Your task to perform on an android device: Show the shopping cart on bestbuy.com. Search for "duracell triple a" on bestbuy.com, select the first entry, and add it to the cart. Image 0: 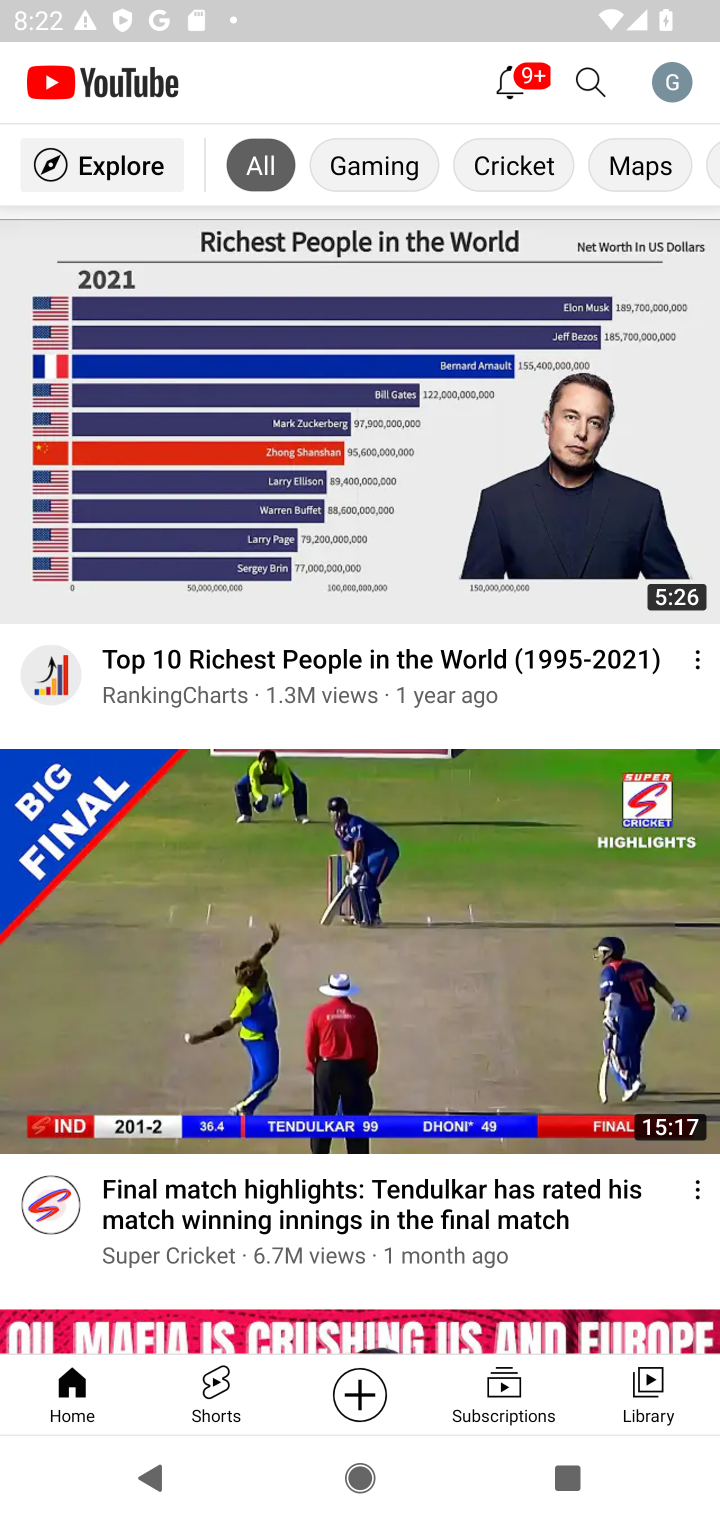
Step 0: press home button
Your task to perform on an android device: Show the shopping cart on bestbuy.com. Search for "duracell triple a" on bestbuy.com, select the first entry, and add it to the cart. Image 1: 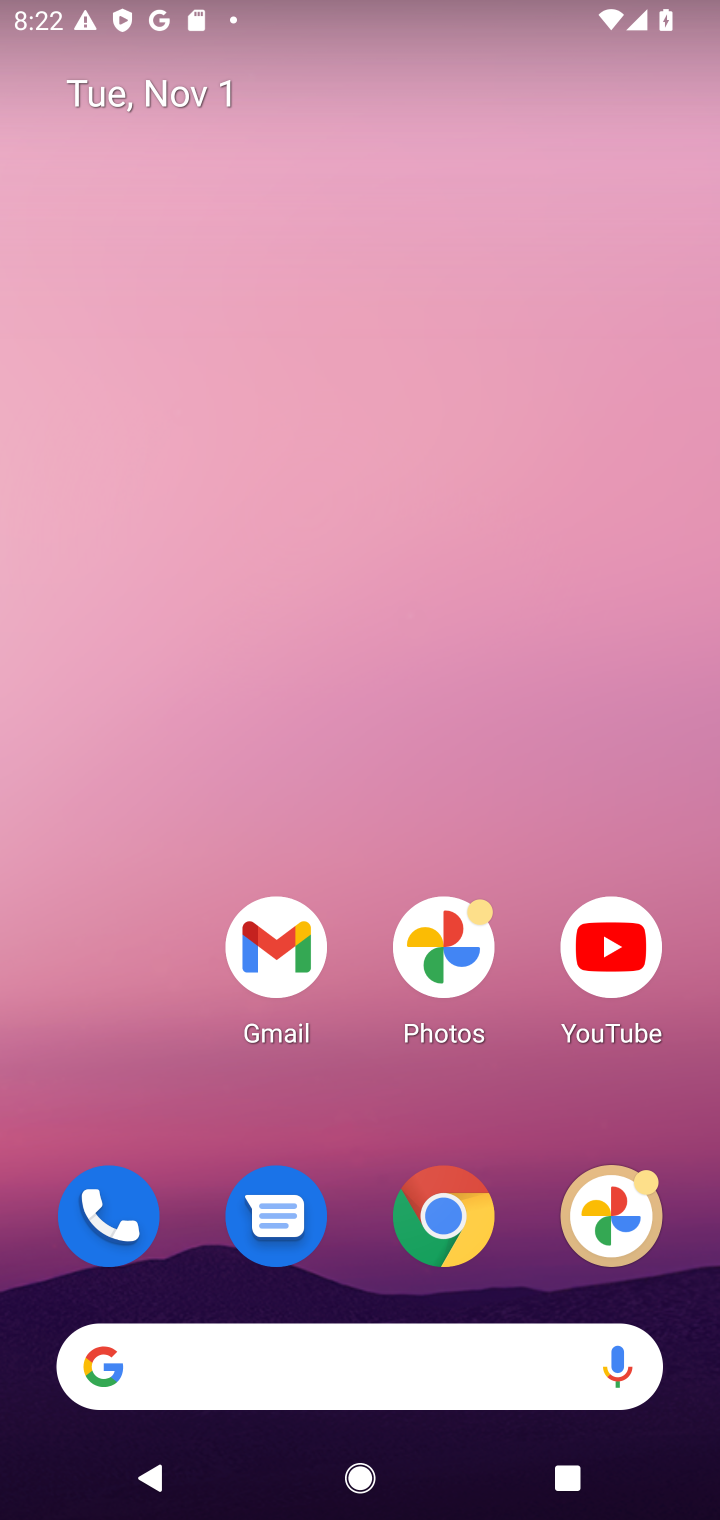
Step 1: click (429, 1230)
Your task to perform on an android device: Show the shopping cart on bestbuy.com. Search for "duracell triple a" on bestbuy.com, select the first entry, and add it to the cart. Image 2: 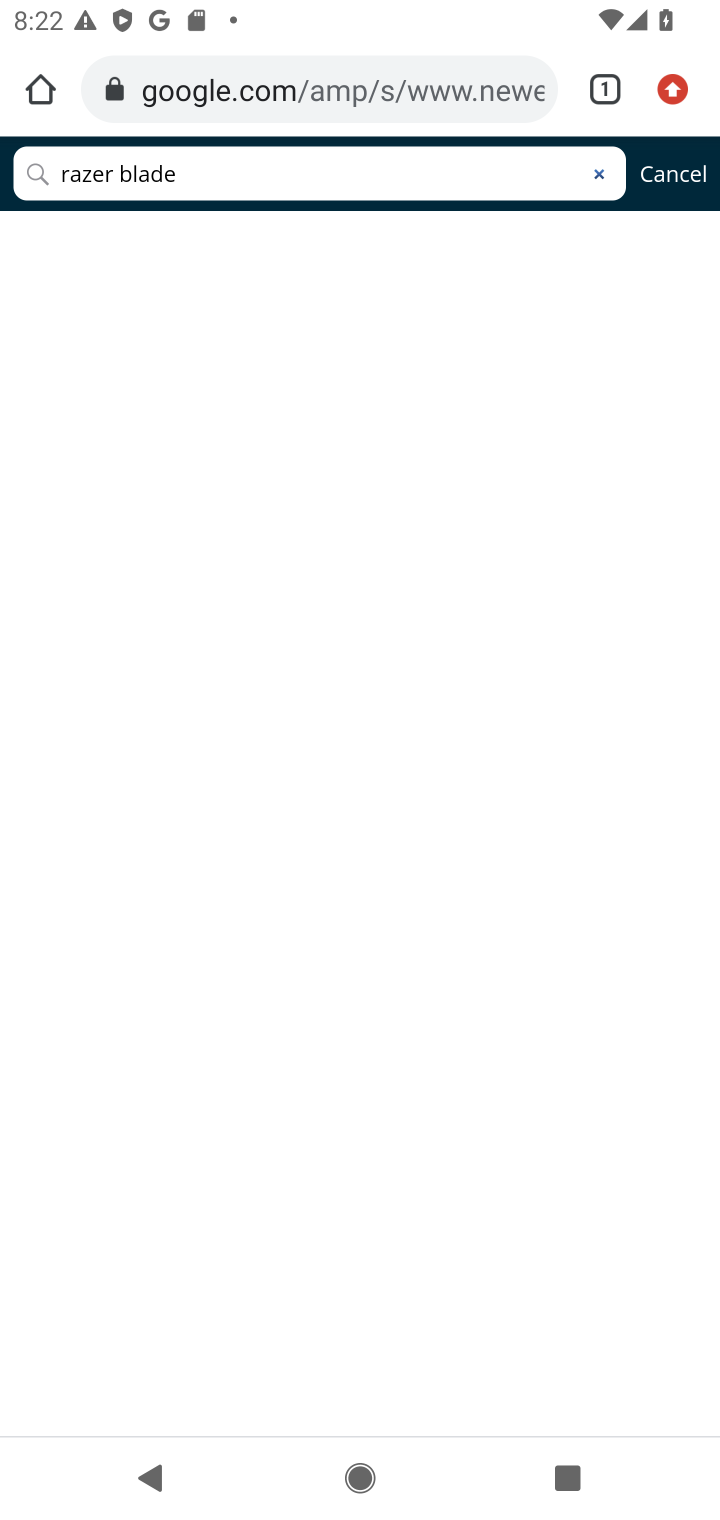
Step 2: click (388, 93)
Your task to perform on an android device: Show the shopping cart on bestbuy.com. Search for "duracell triple a" on bestbuy.com, select the first entry, and add it to the cart. Image 3: 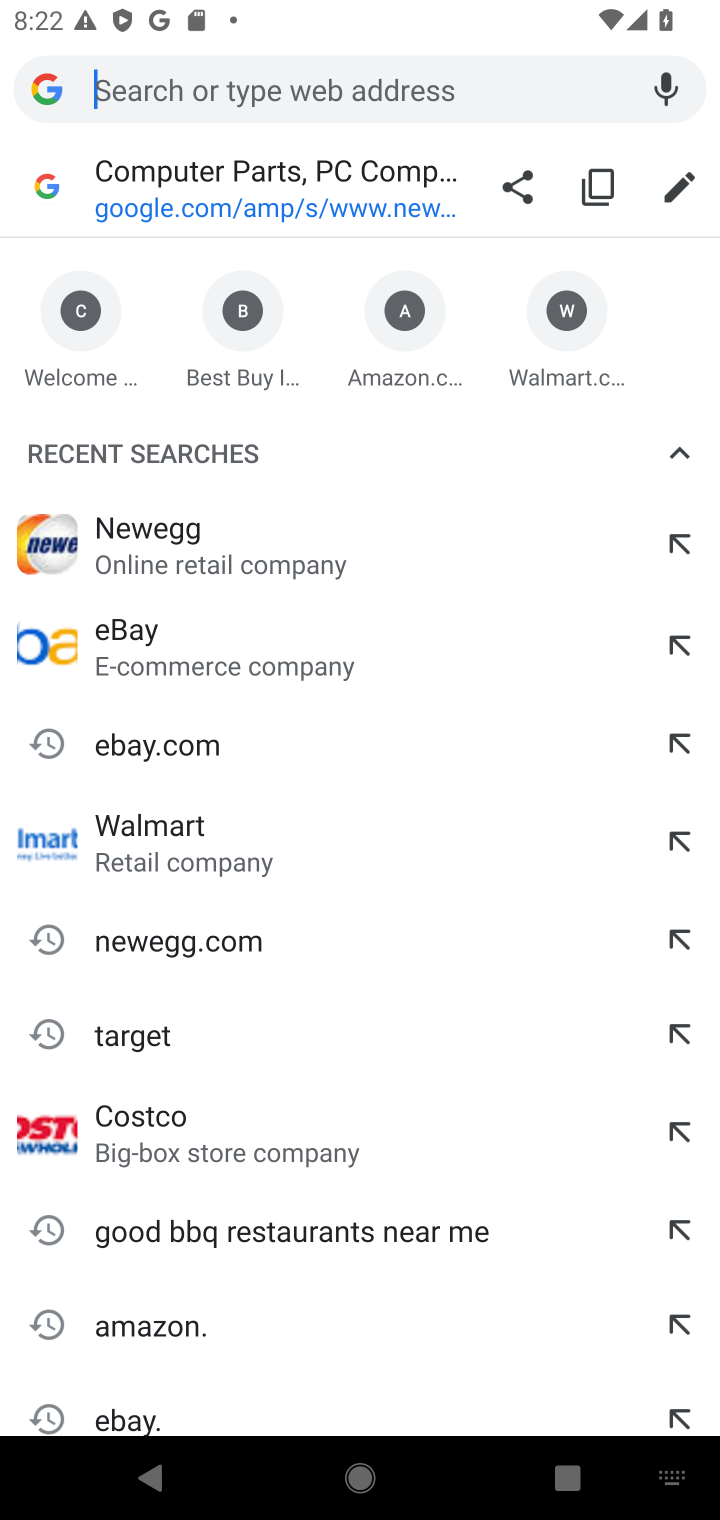
Step 3: type "bestbuy.com"
Your task to perform on an android device: Show the shopping cart on bestbuy.com. Search for "duracell triple a" on bestbuy.com, select the first entry, and add it to the cart. Image 4: 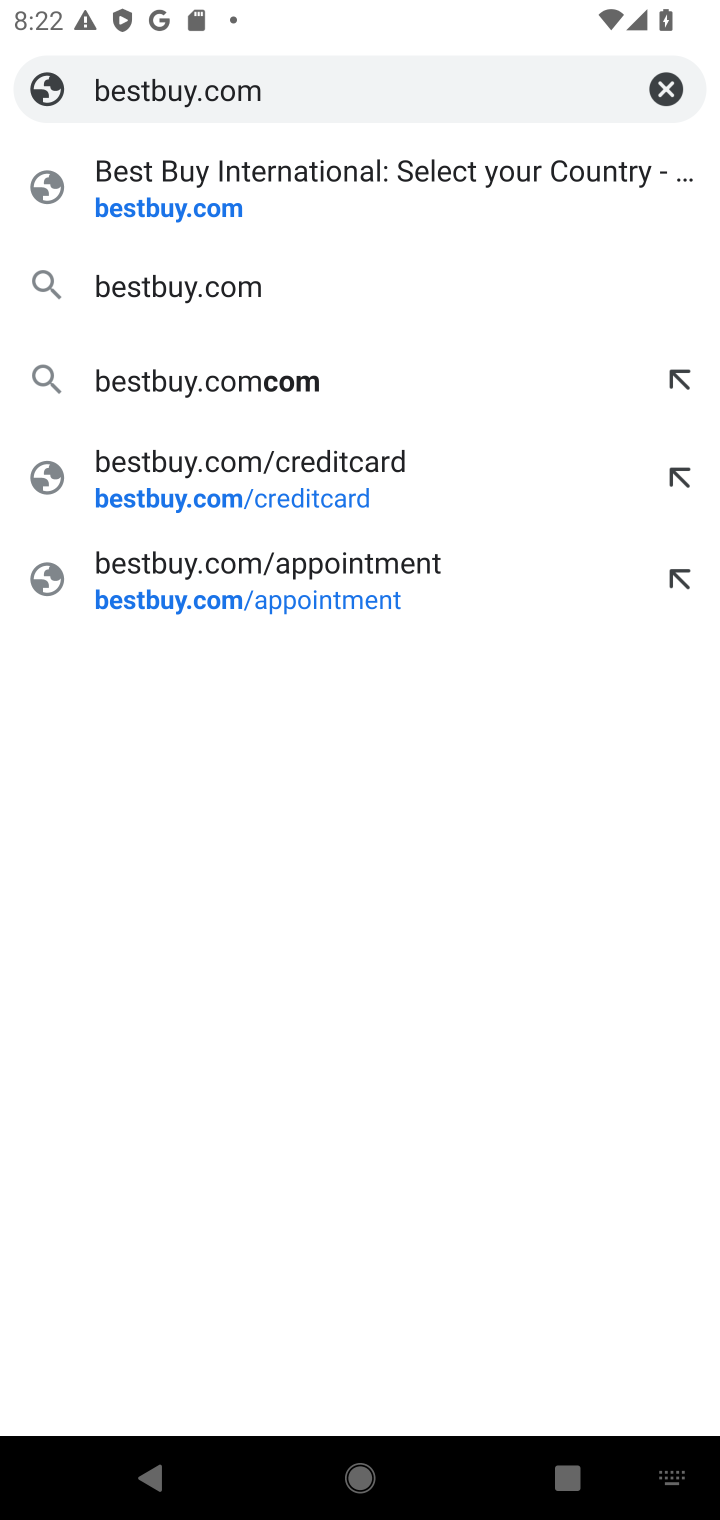
Step 4: click (238, 183)
Your task to perform on an android device: Show the shopping cart on bestbuy.com. Search for "duracell triple a" on bestbuy.com, select the first entry, and add it to the cart. Image 5: 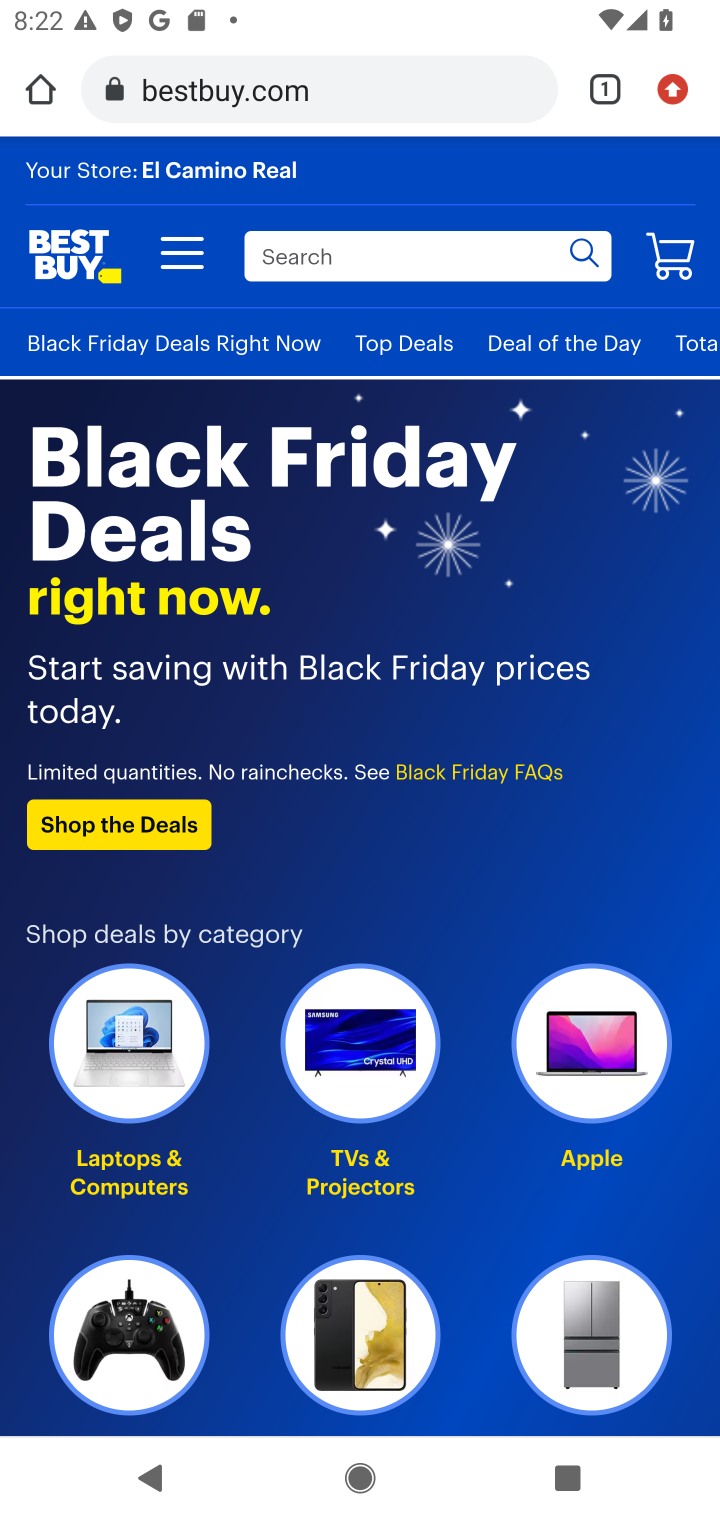
Step 5: click (364, 250)
Your task to perform on an android device: Show the shopping cart on bestbuy.com. Search for "duracell triple a" on bestbuy.com, select the first entry, and add it to the cart. Image 6: 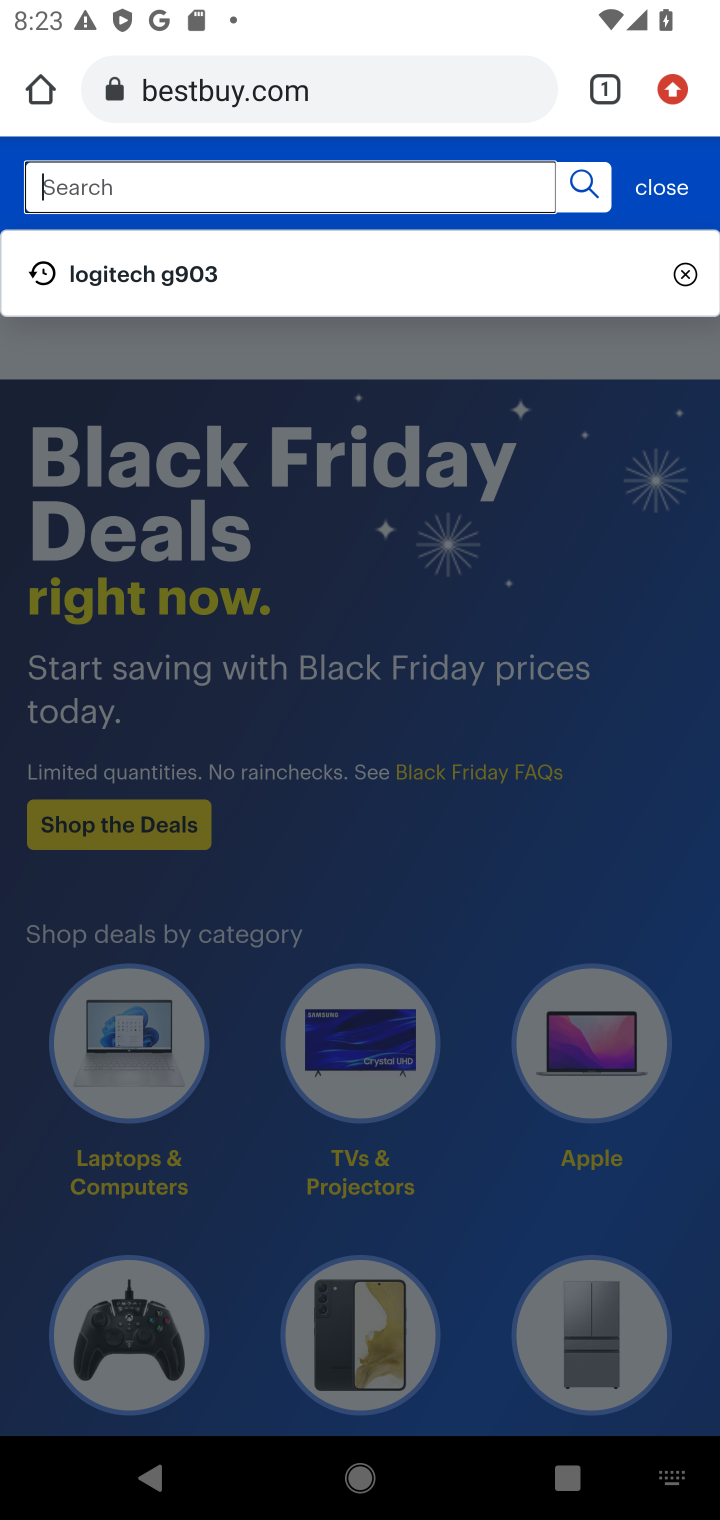
Step 6: type "duracell triple a"
Your task to perform on an android device: Show the shopping cart on bestbuy.com. Search for "duracell triple a" on bestbuy.com, select the first entry, and add it to the cart. Image 7: 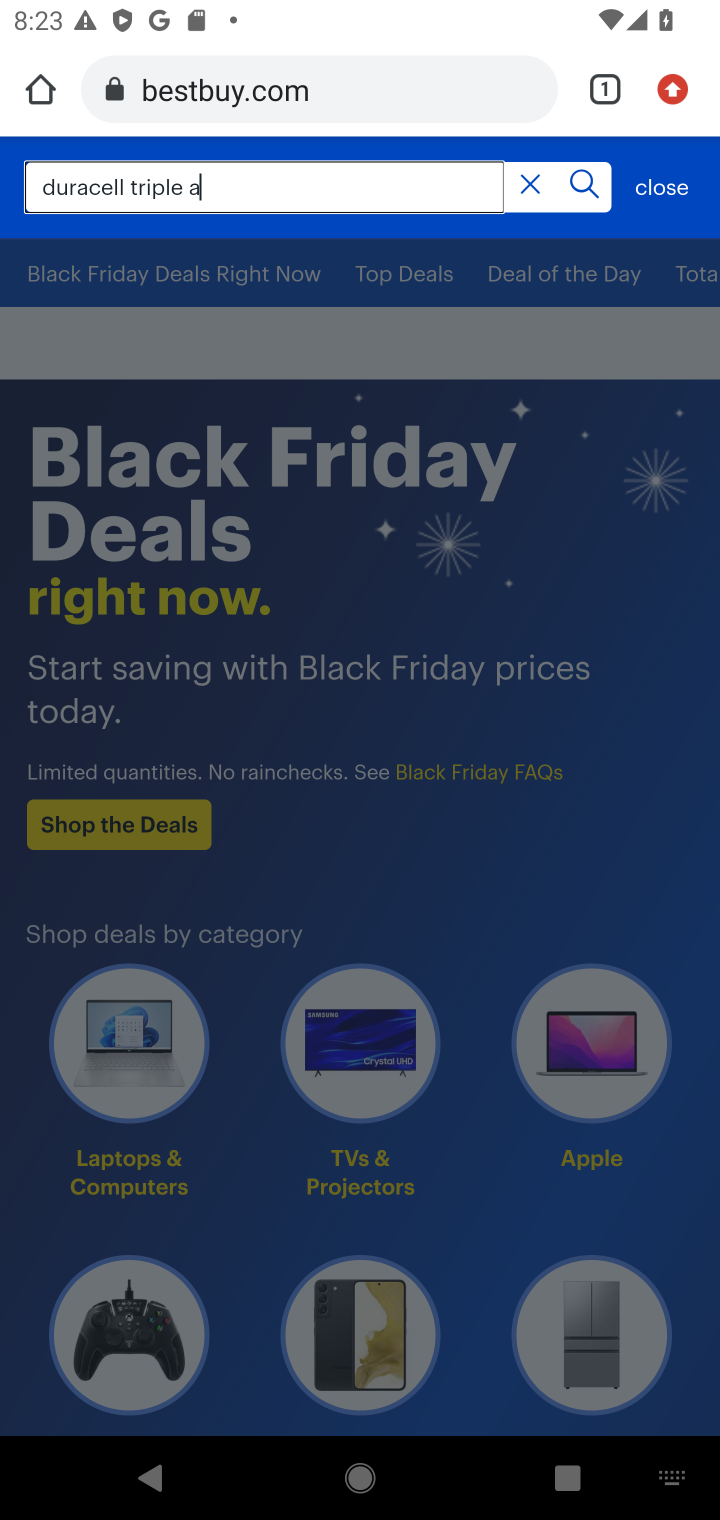
Step 7: click (581, 182)
Your task to perform on an android device: Show the shopping cart on bestbuy.com. Search for "duracell triple a" on bestbuy.com, select the first entry, and add it to the cart. Image 8: 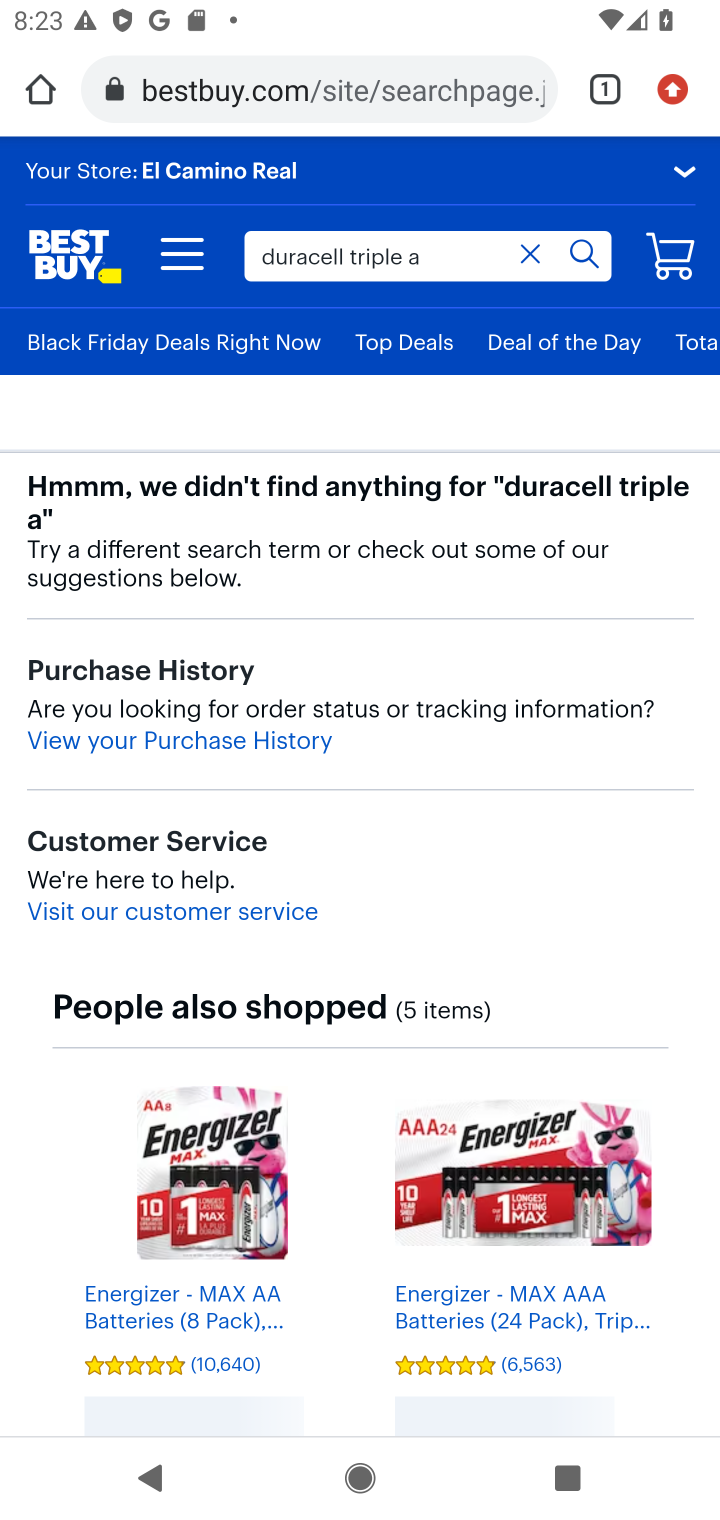
Step 8: click (453, 262)
Your task to perform on an android device: Show the shopping cart on bestbuy.com. Search for "duracell triple a" on bestbuy.com, select the first entry, and add it to the cart. Image 9: 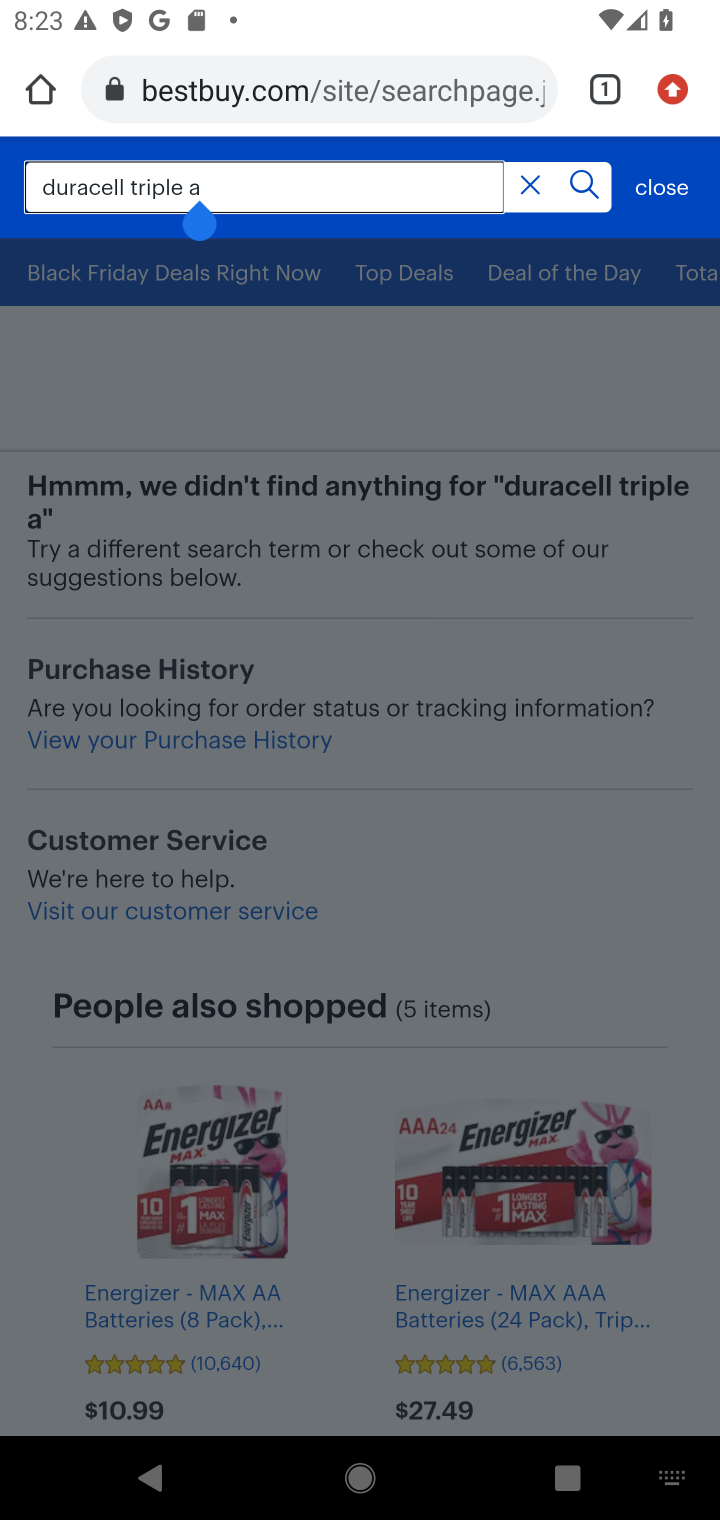
Step 9: click (575, 185)
Your task to perform on an android device: Show the shopping cart on bestbuy.com. Search for "duracell triple a" on bestbuy.com, select the first entry, and add it to the cart. Image 10: 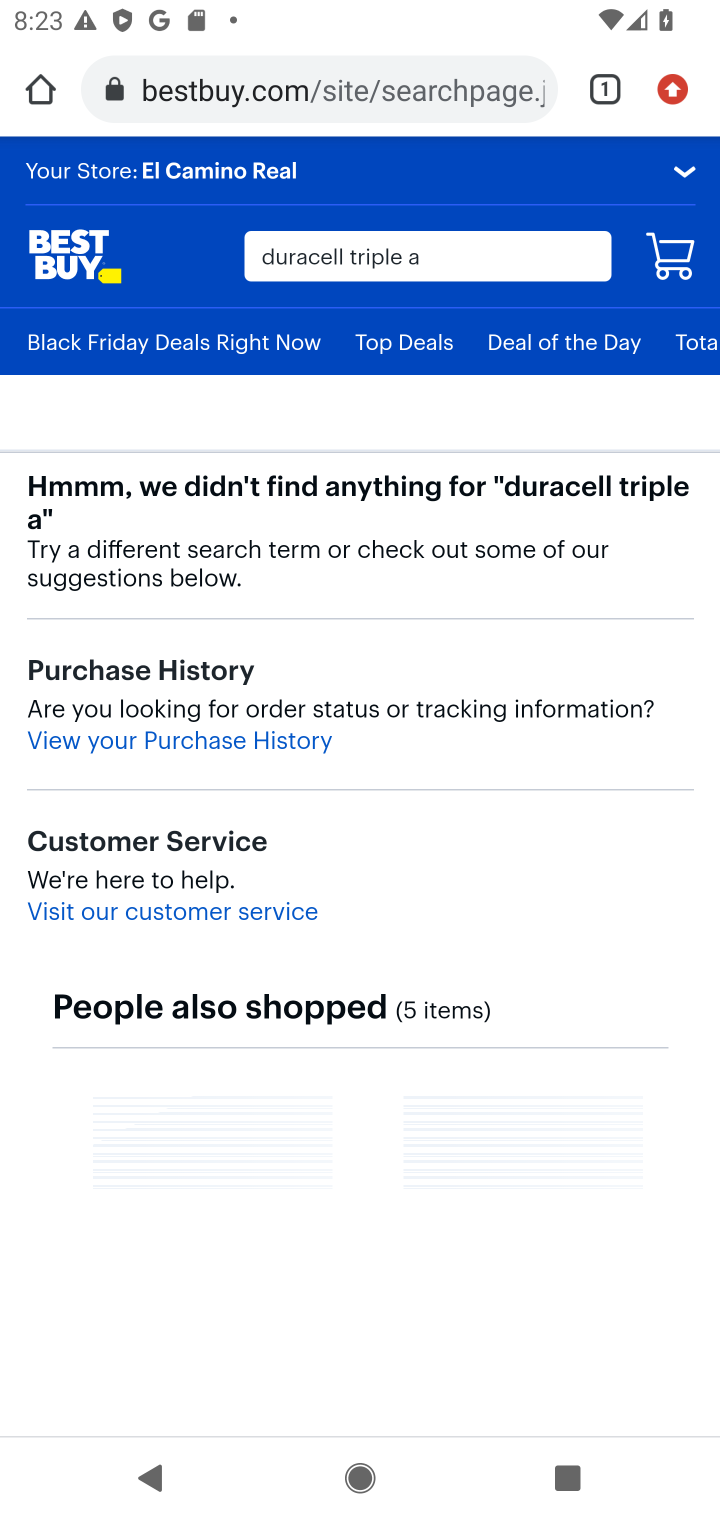
Step 10: task complete